Your task to perform on an android device: Go to internet settings Image 0: 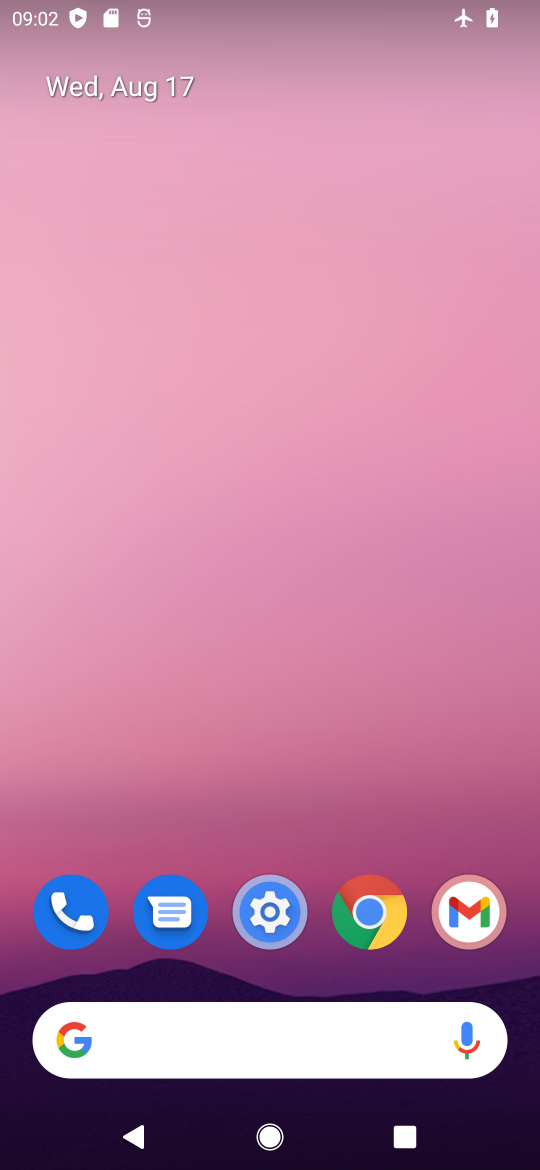
Step 0: click (267, 917)
Your task to perform on an android device: Go to internet settings Image 1: 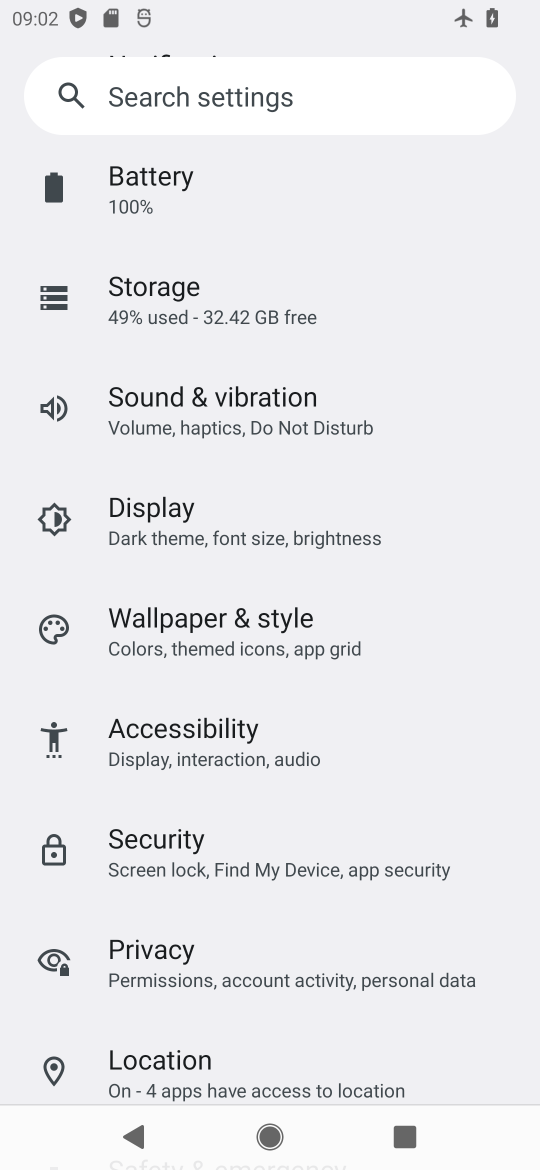
Step 1: drag from (220, 429) to (244, 942)
Your task to perform on an android device: Go to internet settings Image 2: 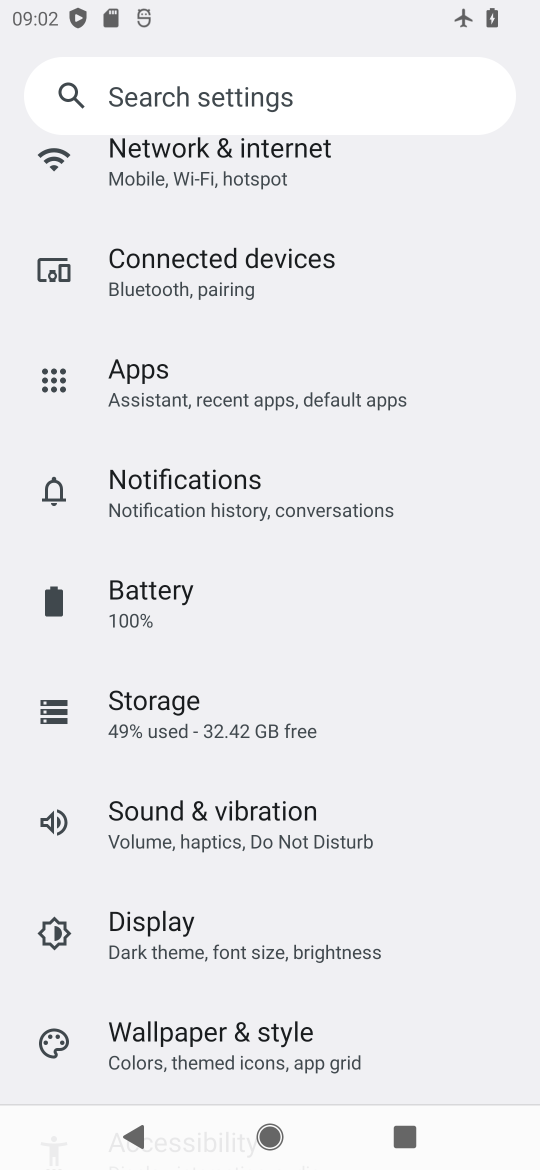
Step 2: drag from (260, 227) to (291, 779)
Your task to perform on an android device: Go to internet settings Image 3: 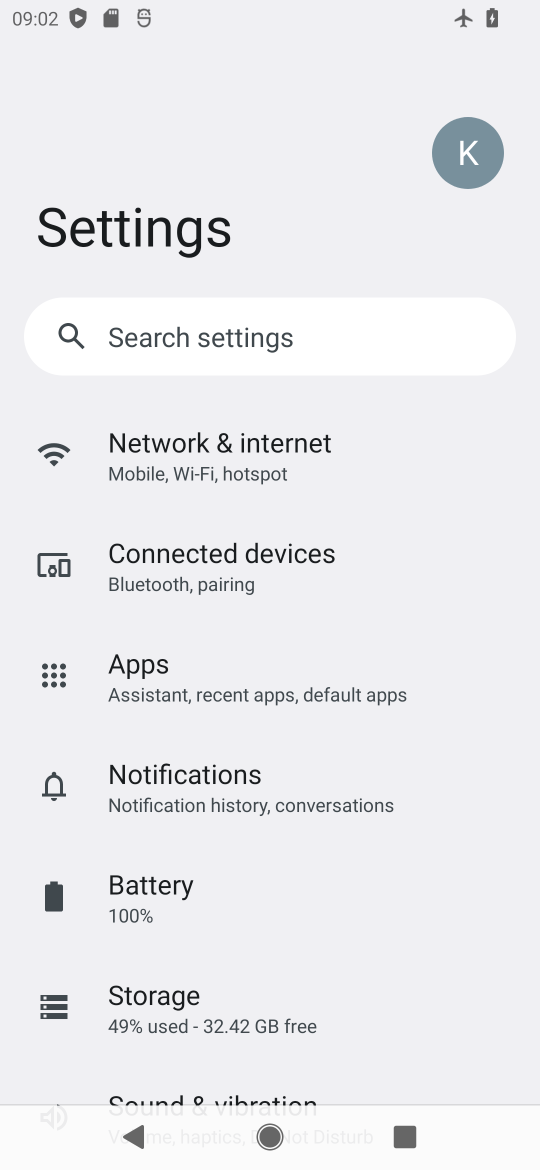
Step 3: click (194, 466)
Your task to perform on an android device: Go to internet settings Image 4: 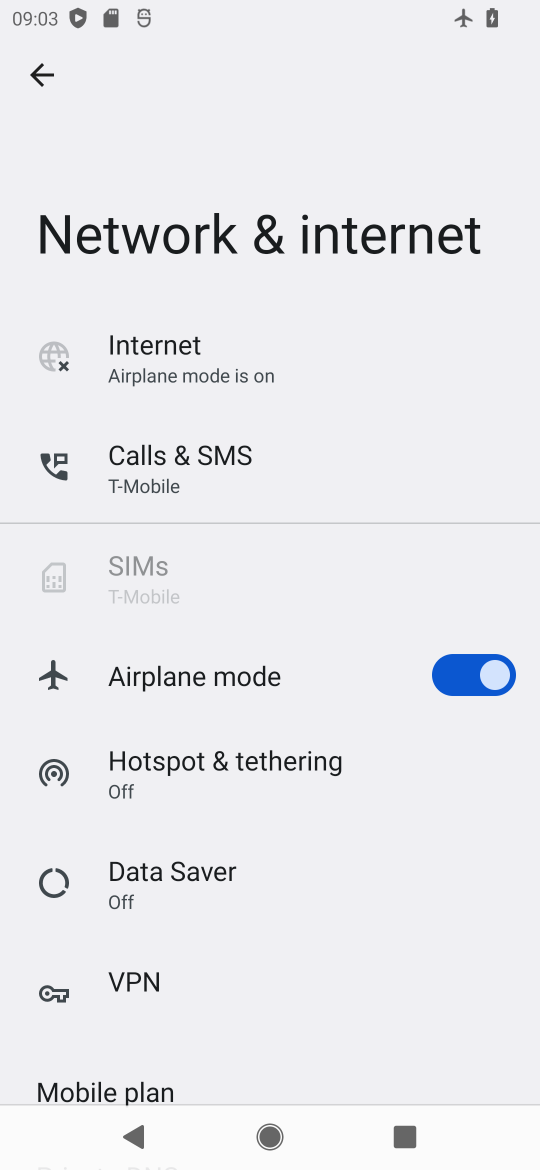
Step 4: click (161, 364)
Your task to perform on an android device: Go to internet settings Image 5: 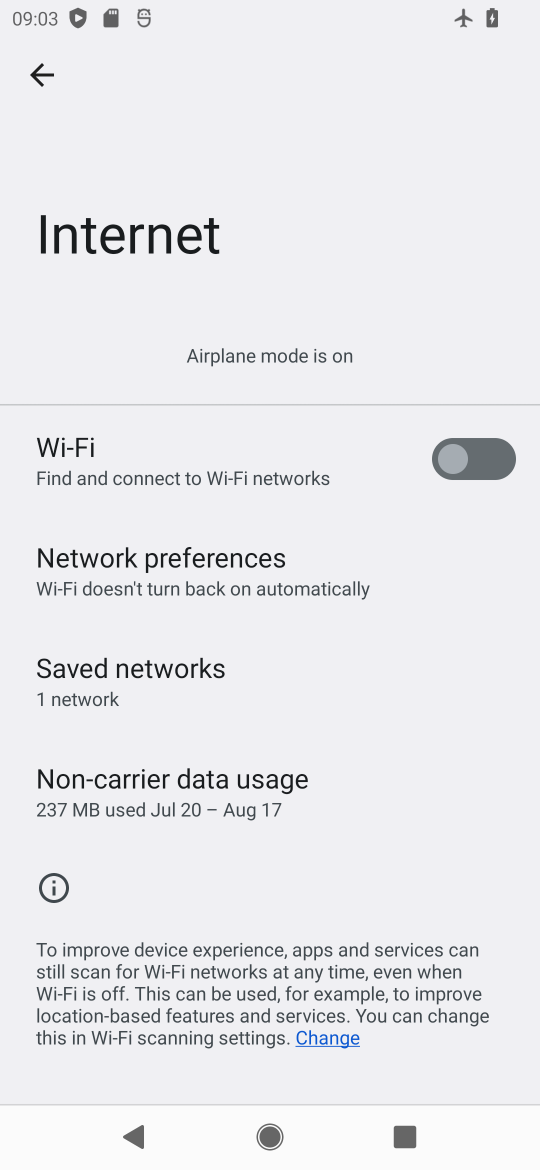
Step 5: task complete